Your task to perform on an android device: turn on translation in the chrome app Image 0: 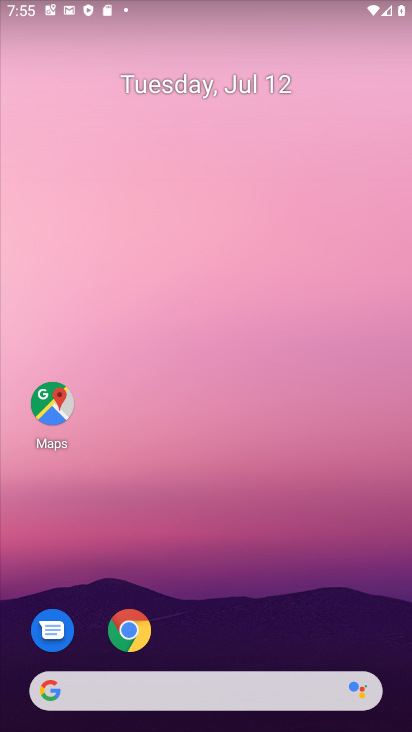
Step 0: click (114, 640)
Your task to perform on an android device: turn on translation in the chrome app Image 1: 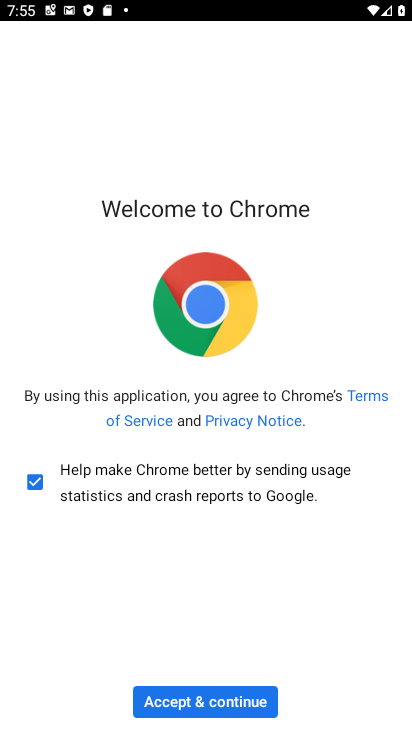
Step 1: click (186, 705)
Your task to perform on an android device: turn on translation in the chrome app Image 2: 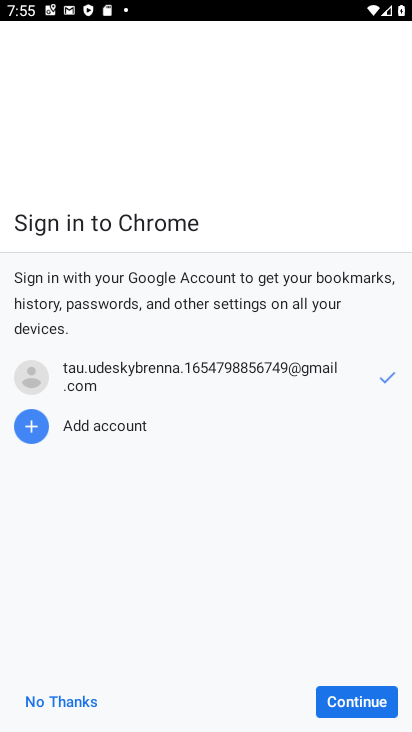
Step 2: click (352, 707)
Your task to perform on an android device: turn on translation in the chrome app Image 3: 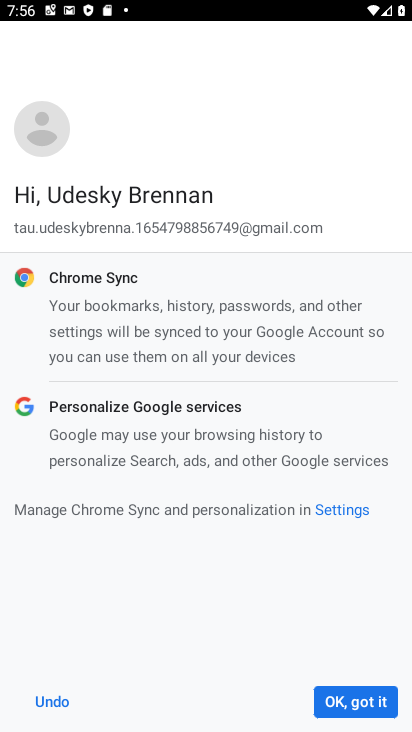
Step 3: click (370, 706)
Your task to perform on an android device: turn on translation in the chrome app Image 4: 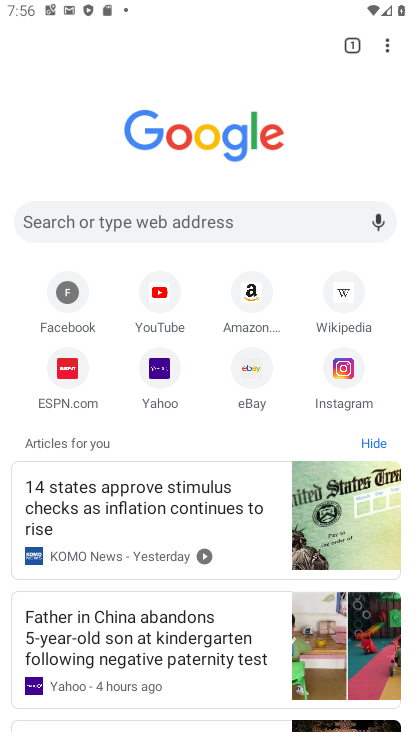
Step 4: drag from (389, 36) to (271, 380)
Your task to perform on an android device: turn on translation in the chrome app Image 5: 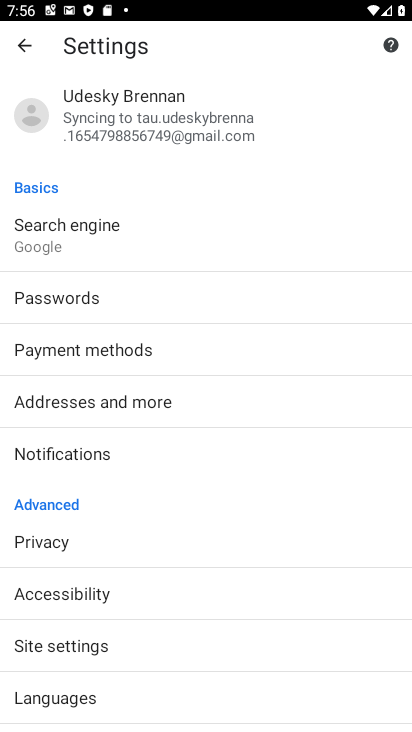
Step 5: click (97, 698)
Your task to perform on an android device: turn on translation in the chrome app Image 6: 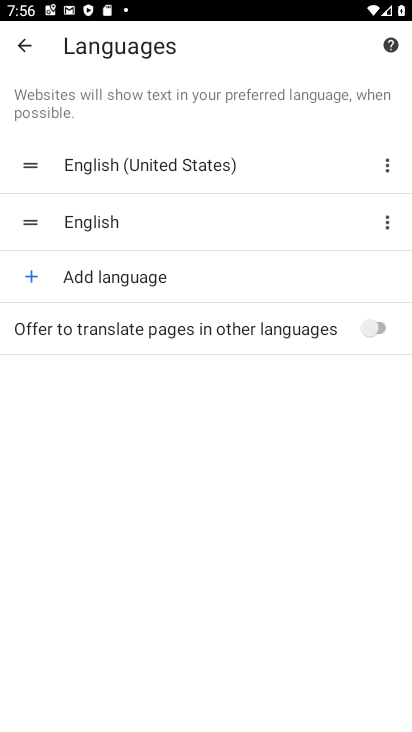
Step 6: click (378, 326)
Your task to perform on an android device: turn on translation in the chrome app Image 7: 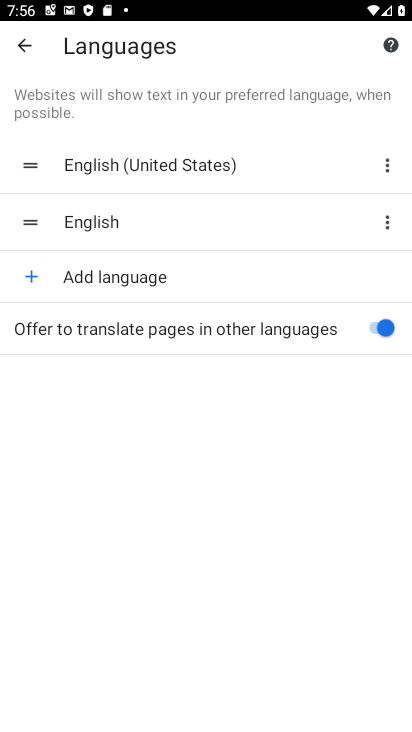
Step 7: task complete